Your task to perform on an android device: Go to internet settings Image 0: 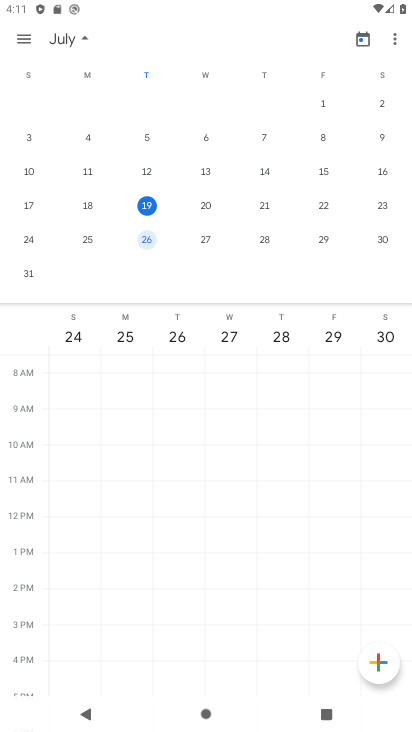
Step 0: drag from (170, 12) to (181, 547)
Your task to perform on an android device: Go to internet settings Image 1: 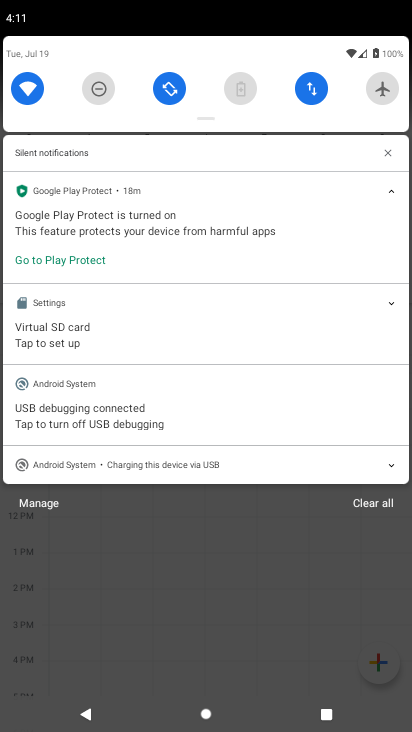
Step 1: click (317, 81)
Your task to perform on an android device: Go to internet settings Image 2: 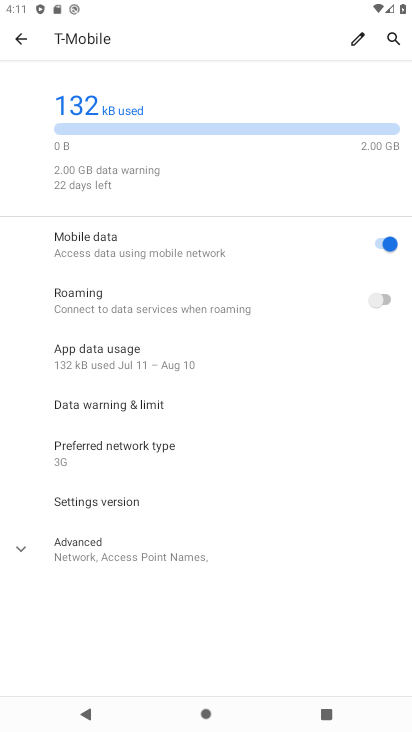
Step 2: task complete